Your task to perform on an android device: Add "duracell triple a" to the cart on ebay, then select checkout. Image 0: 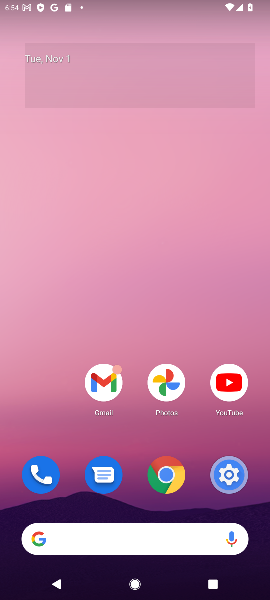
Step 0: click (178, 538)
Your task to perform on an android device: Add "duracell triple a" to the cart on ebay, then select checkout. Image 1: 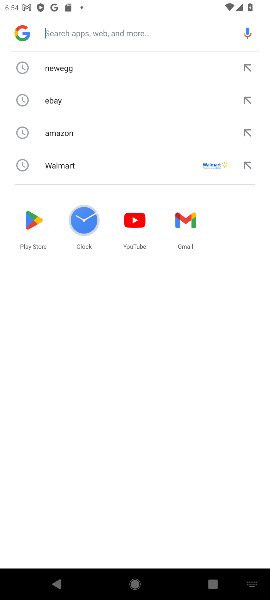
Step 1: type "ebay"
Your task to perform on an android device: Add "duracell triple a" to the cart on ebay, then select checkout. Image 2: 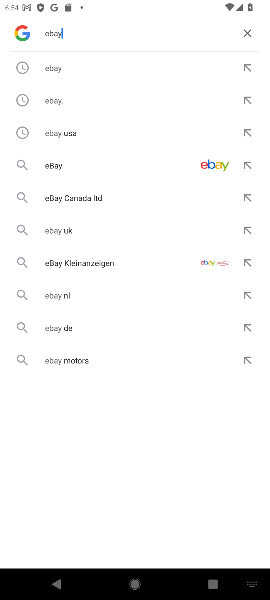
Step 2: click (120, 167)
Your task to perform on an android device: Add "duracell triple a" to the cart on ebay, then select checkout. Image 3: 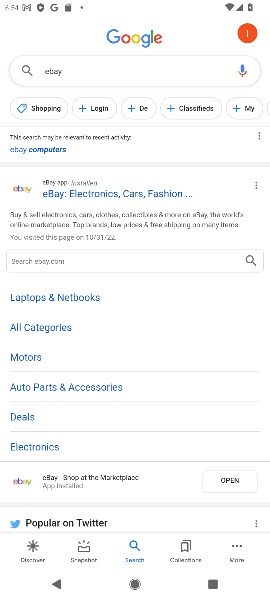
Step 3: click (73, 193)
Your task to perform on an android device: Add "duracell triple a" to the cart on ebay, then select checkout. Image 4: 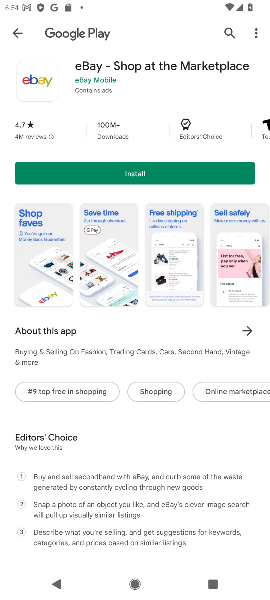
Step 4: click (17, 28)
Your task to perform on an android device: Add "duracell triple a" to the cart on ebay, then select checkout. Image 5: 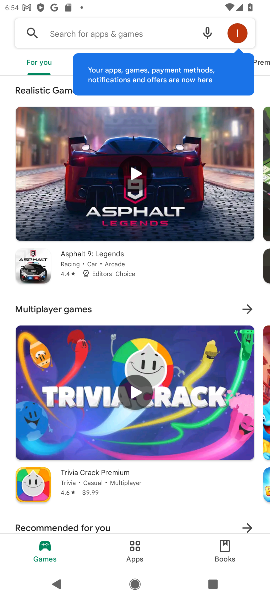
Step 5: press back button
Your task to perform on an android device: Add "duracell triple a" to the cart on ebay, then select checkout. Image 6: 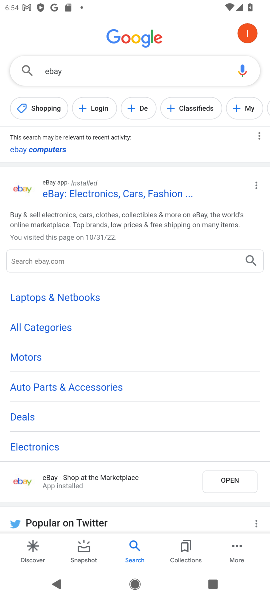
Step 6: drag from (152, 373) to (211, 0)
Your task to perform on an android device: Add "duracell triple a" to the cart on ebay, then select checkout. Image 7: 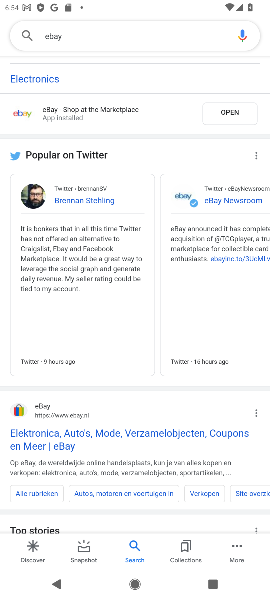
Step 7: click (52, 436)
Your task to perform on an android device: Add "duracell triple a" to the cart on ebay, then select checkout. Image 8: 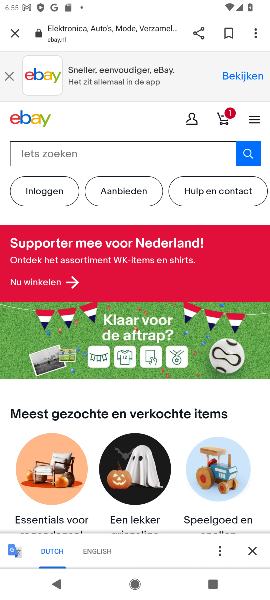
Step 8: click (82, 147)
Your task to perform on an android device: Add "duracell triple a" to the cart on ebay, then select checkout. Image 9: 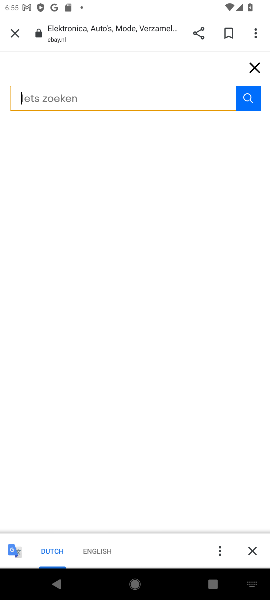
Step 9: type "duracell triple a"
Your task to perform on an android device: Add "duracell triple a" to the cart on ebay, then select checkout. Image 10: 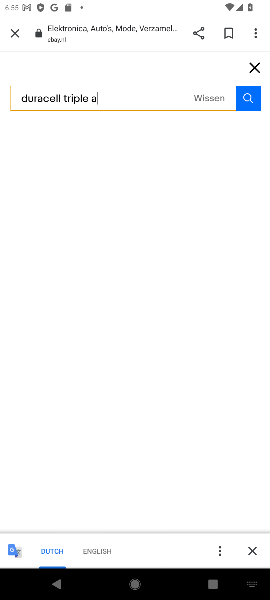
Step 10: click (248, 102)
Your task to perform on an android device: Add "duracell triple a" to the cart on ebay, then select checkout. Image 11: 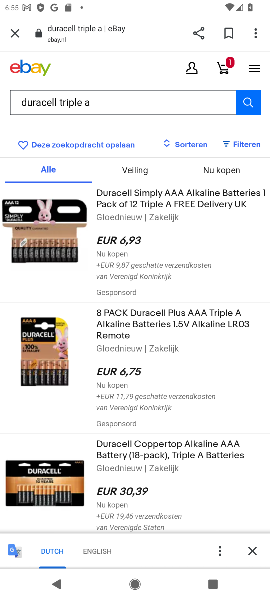
Step 11: click (122, 213)
Your task to perform on an android device: Add "duracell triple a" to the cart on ebay, then select checkout. Image 12: 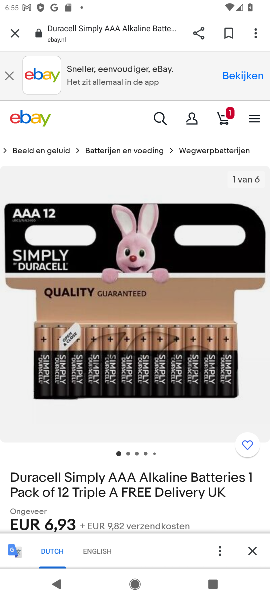
Step 12: click (192, 284)
Your task to perform on an android device: Add "duracell triple a" to the cart on ebay, then select checkout. Image 13: 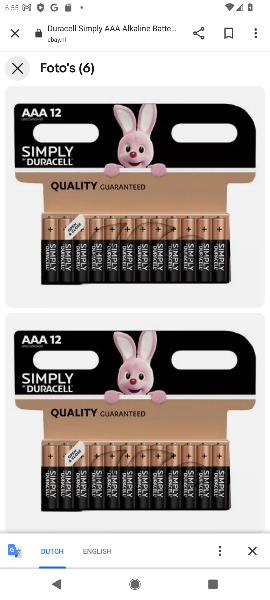
Step 13: drag from (207, 466) to (221, 373)
Your task to perform on an android device: Add "duracell triple a" to the cart on ebay, then select checkout. Image 14: 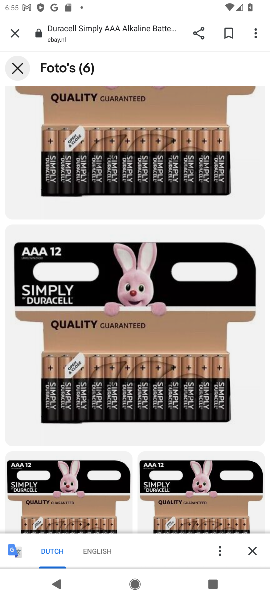
Step 14: drag from (242, 482) to (215, 294)
Your task to perform on an android device: Add "duracell triple a" to the cart on ebay, then select checkout. Image 15: 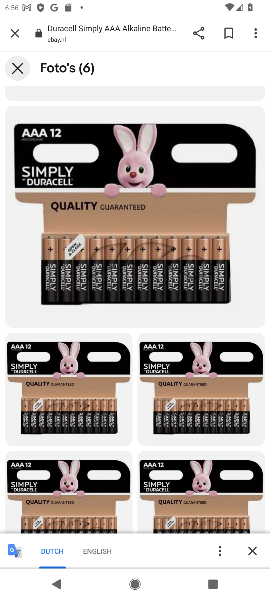
Step 15: drag from (125, 449) to (147, 273)
Your task to perform on an android device: Add "duracell triple a" to the cart on ebay, then select checkout. Image 16: 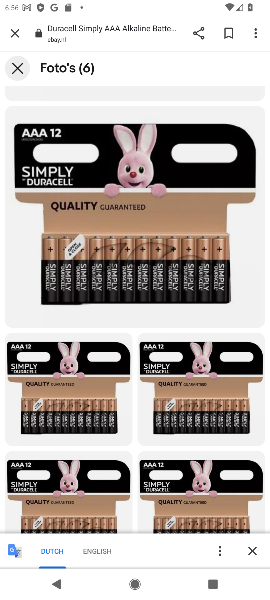
Step 16: click (254, 553)
Your task to perform on an android device: Add "duracell triple a" to the cart on ebay, then select checkout. Image 17: 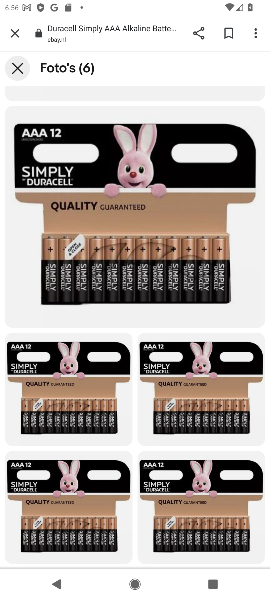
Step 17: drag from (195, 485) to (183, 100)
Your task to perform on an android device: Add "duracell triple a" to the cart on ebay, then select checkout. Image 18: 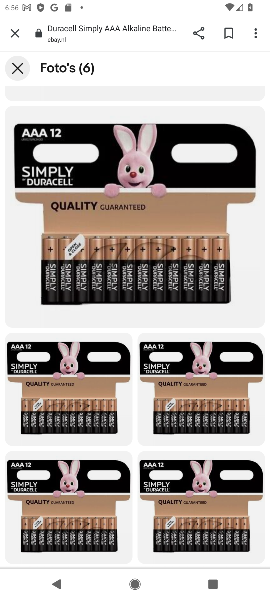
Step 18: click (19, 66)
Your task to perform on an android device: Add "duracell triple a" to the cart on ebay, then select checkout. Image 19: 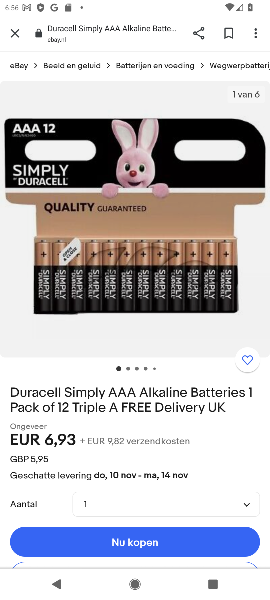
Step 19: drag from (143, 472) to (145, 252)
Your task to perform on an android device: Add "duracell triple a" to the cart on ebay, then select checkout. Image 20: 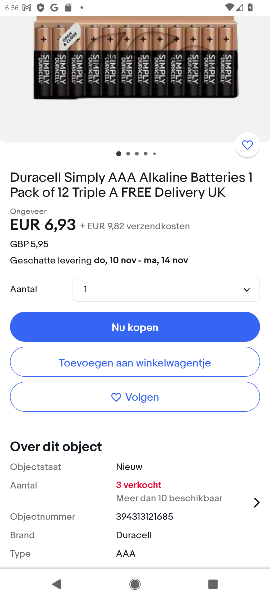
Step 20: click (135, 325)
Your task to perform on an android device: Add "duracell triple a" to the cart on ebay, then select checkout. Image 21: 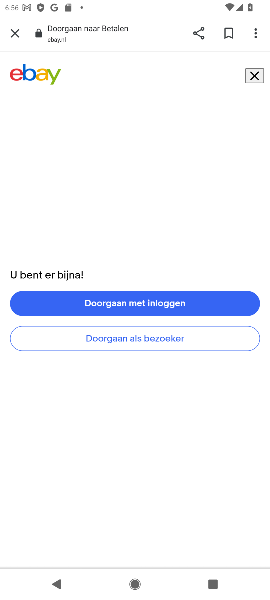
Step 21: task complete